Your task to perform on an android device: Open settings Image 0: 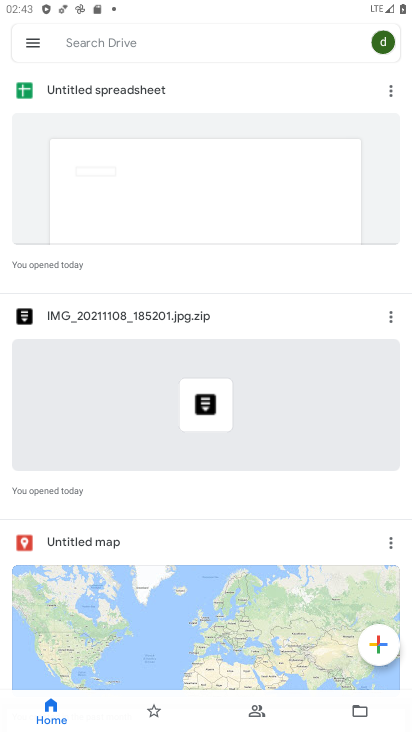
Step 0: press home button
Your task to perform on an android device: Open settings Image 1: 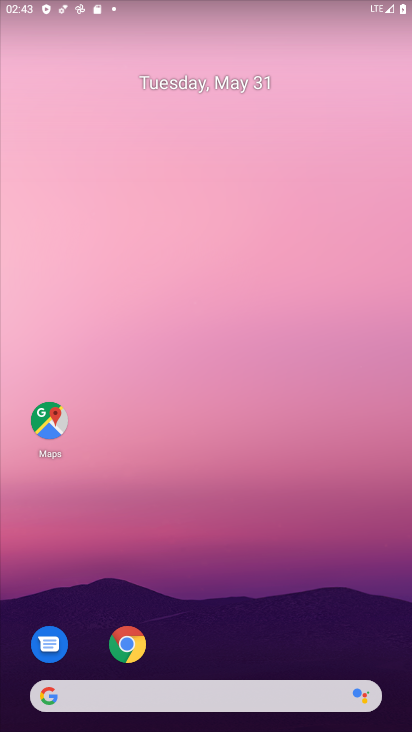
Step 1: drag from (265, 597) to (254, 215)
Your task to perform on an android device: Open settings Image 2: 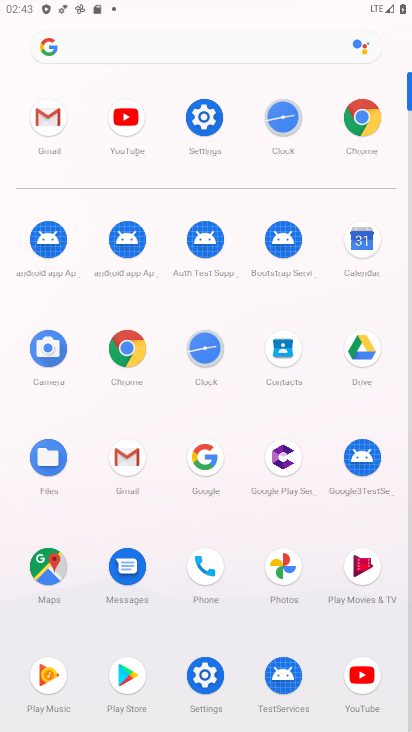
Step 2: click (201, 115)
Your task to perform on an android device: Open settings Image 3: 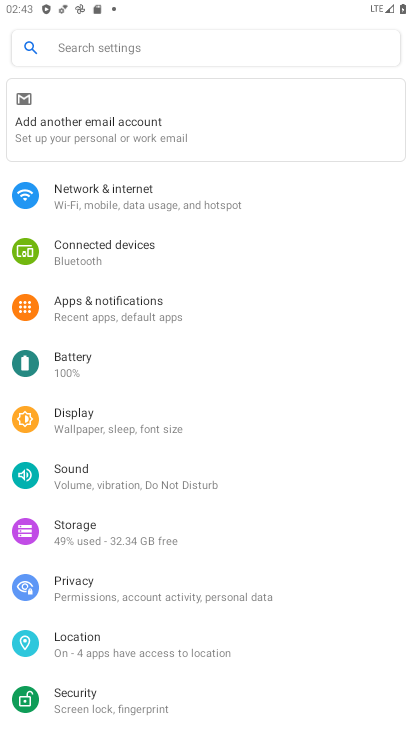
Step 3: task complete